Your task to perform on an android device: toggle airplane mode Image 0: 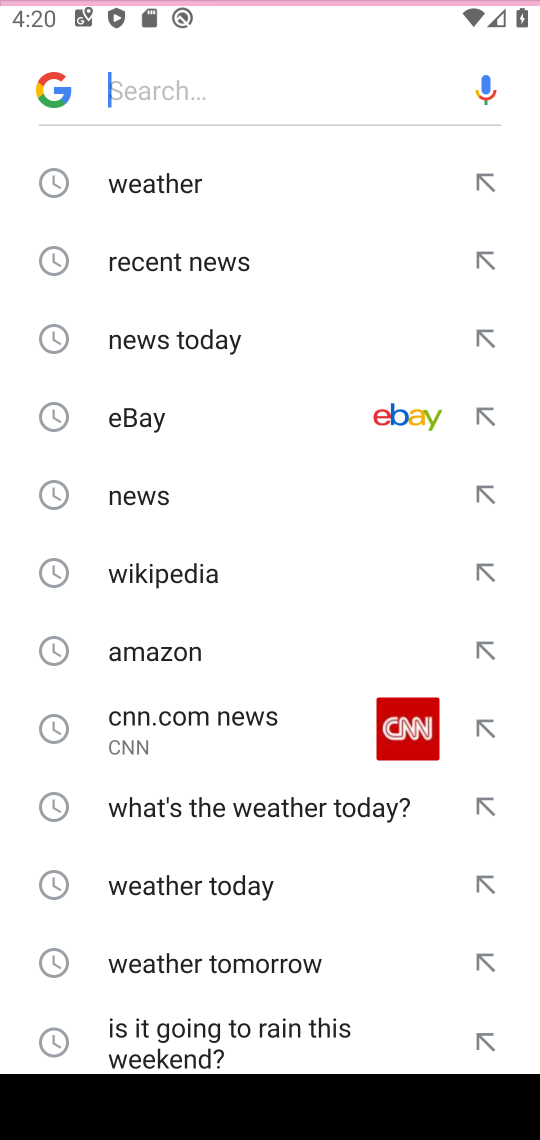
Step 0: click (280, 147)
Your task to perform on an android device: toggle airplane mode Image 1: 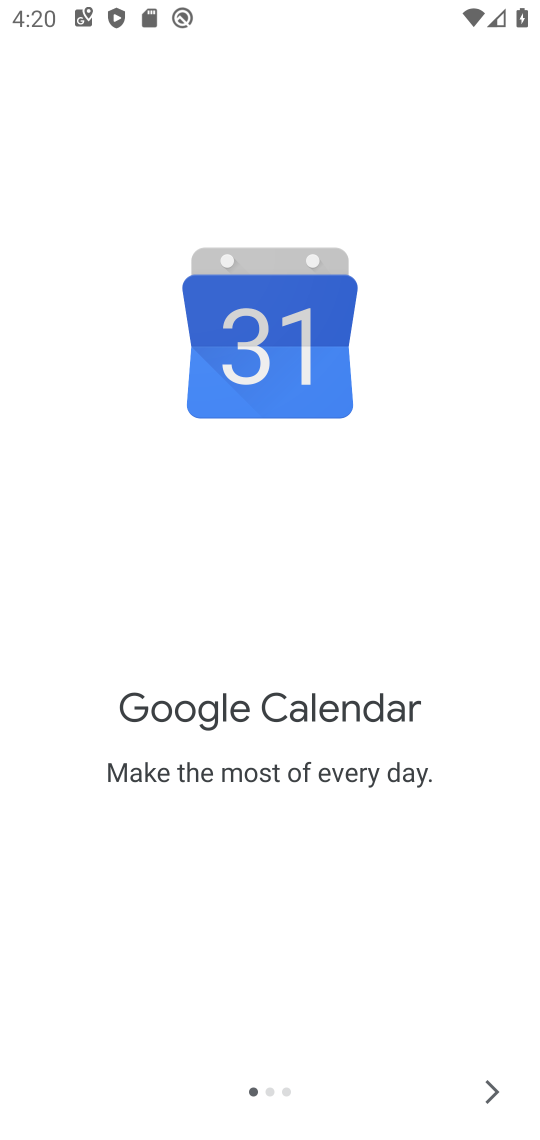
Step 1: press home button
Your task to perform on an android device: toggle airplane mode Image 2: 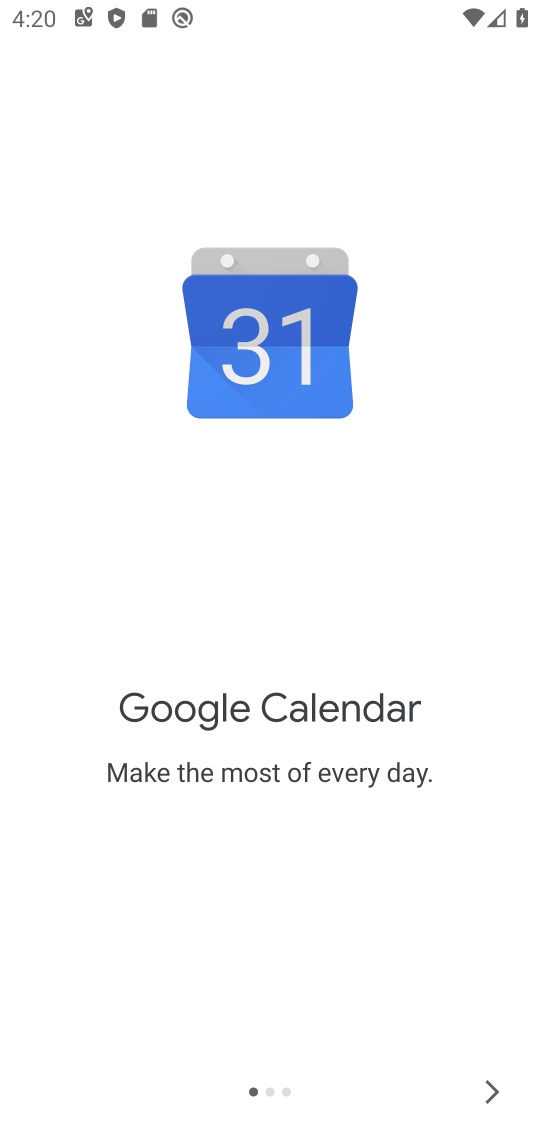
Step 2: press home button
Your task to perform on an android device: toggle airplane mode Image 3: 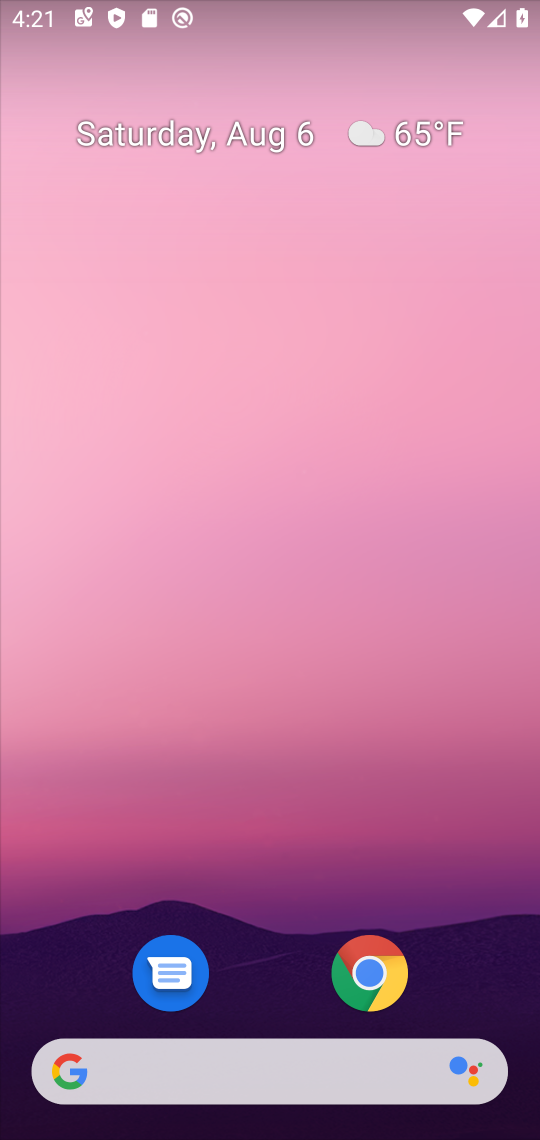
Step 3: drag from (269, 769) to (307, 56)
Your task to perform on an android device: toggle airplane mode Image 4: 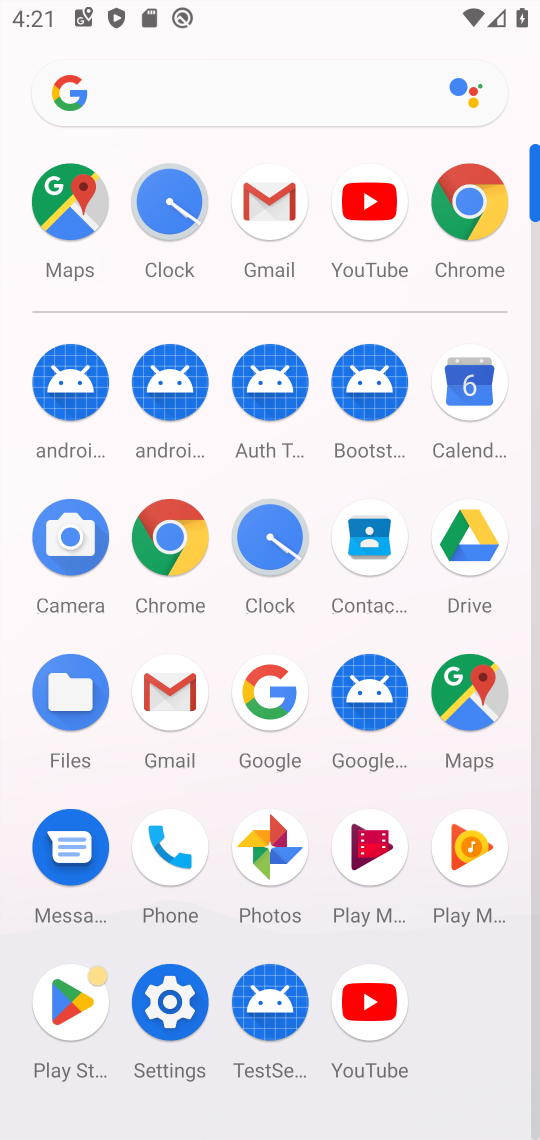
Step 4: click (179, 1003)
Your task to perform on an android device: toggle airplane mode Image 5: 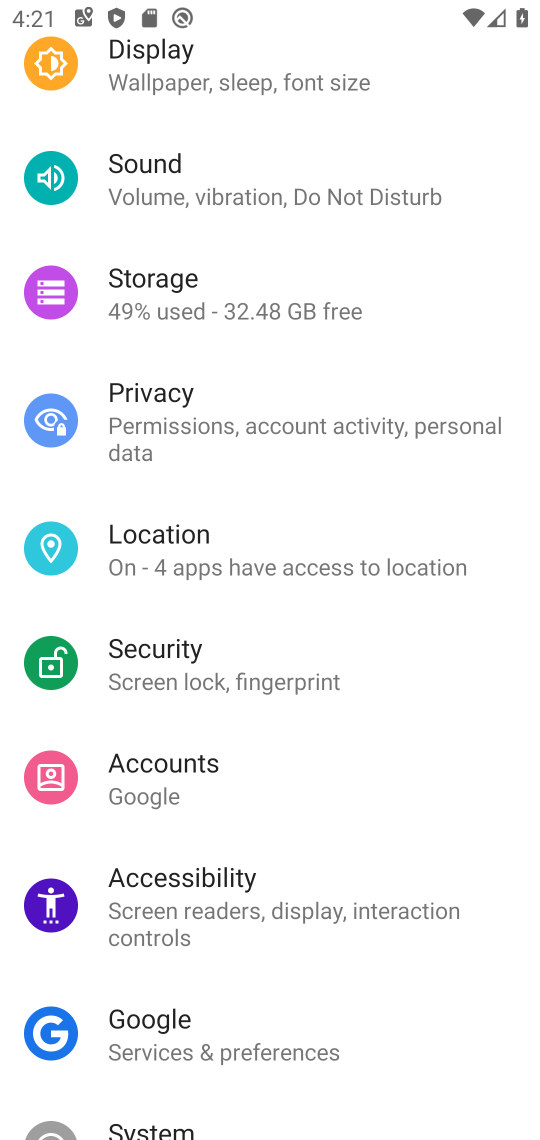
Step 5: drag from (324, 185) to (317, 905)
Your task to perform on an android device: toggle airplane mode Image 6: 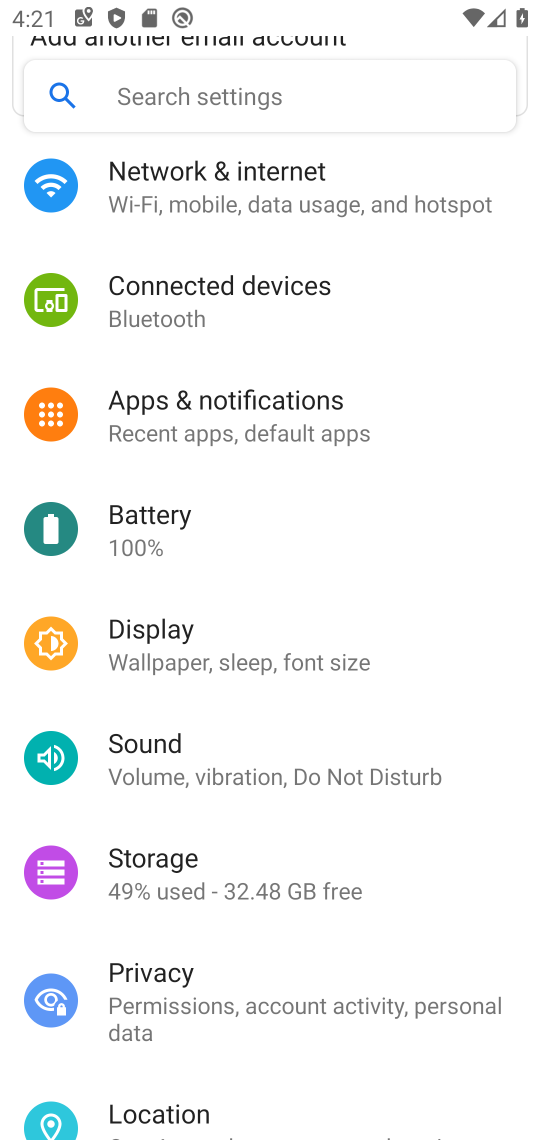
Step 6: click (301, 212)
Your task to perform on an android device: toggle airplane mode Image 7: 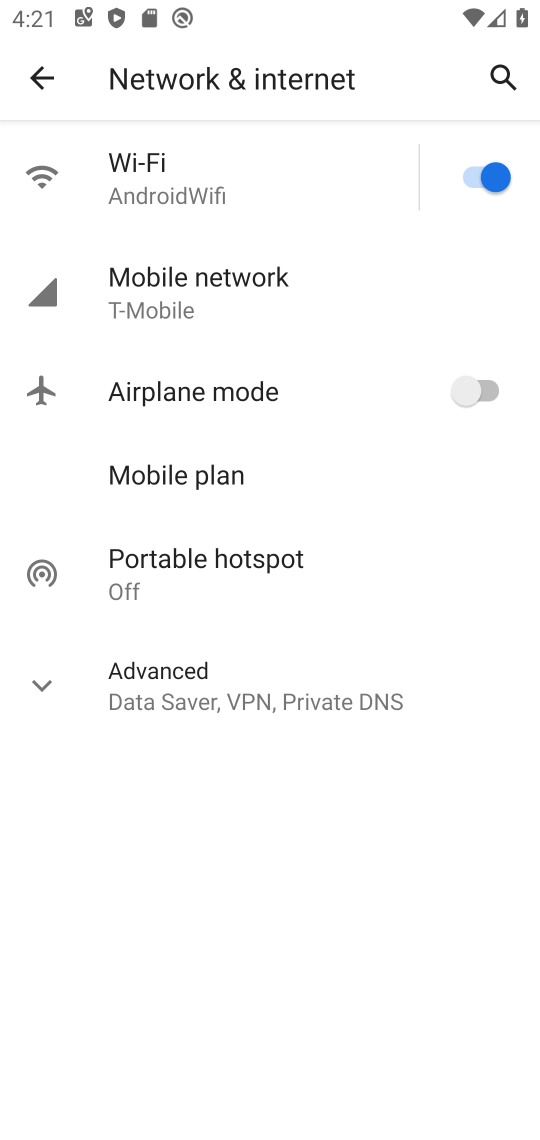
Step 7: click (488, 398)
Your task to perform on an android device: toggle airplane mode Image 8: 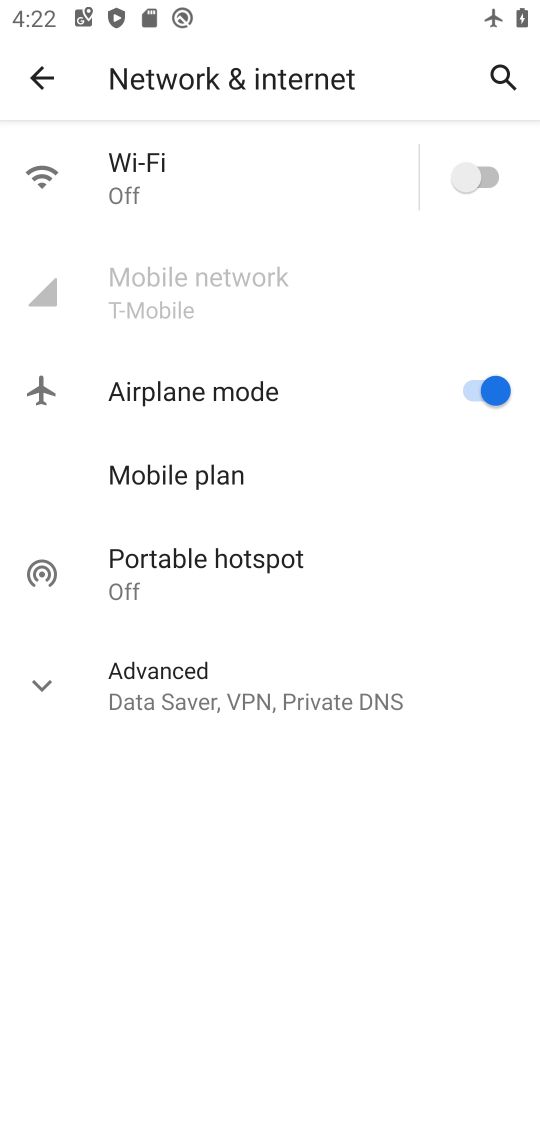
Step 8: task complete